Your task to perform on an android device: set an alarm Image 0: 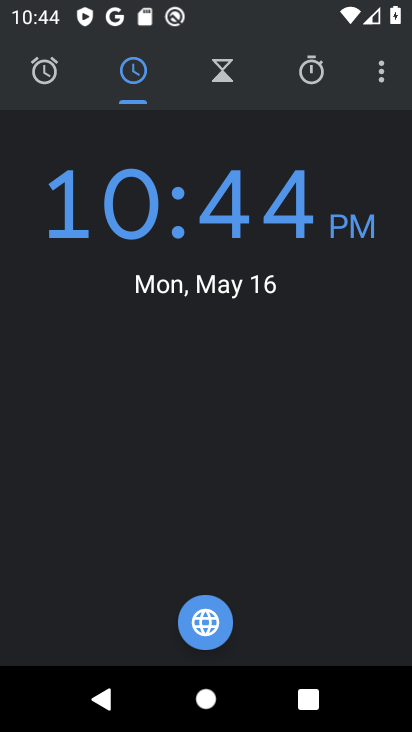
Step 0: click (40, 60)
Your task to perform on an android device: set an alarm Image 1: 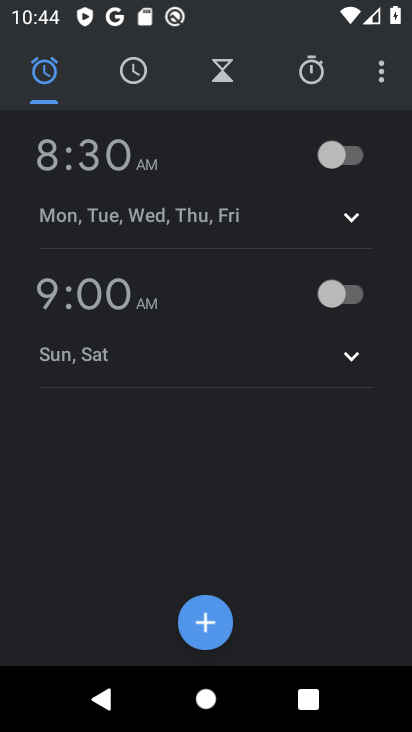
Step 1: click (351, 288)
Your task to perform on an android device: set an alarm Image 2: 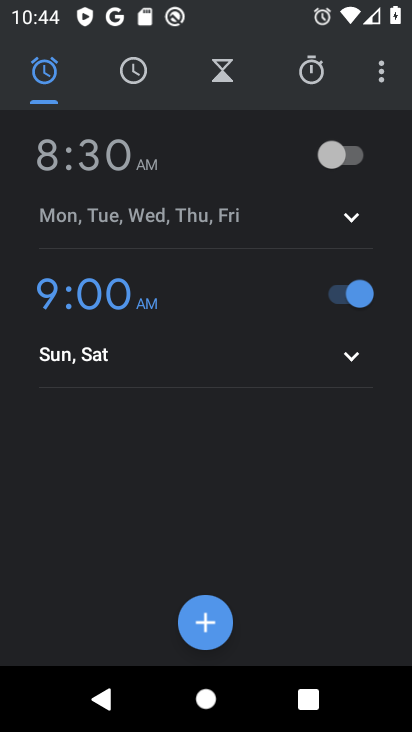
Step 2: task complete